Your task to perform on an android device: Add "bose soundlink" to the cart on amazon.com Image 0: 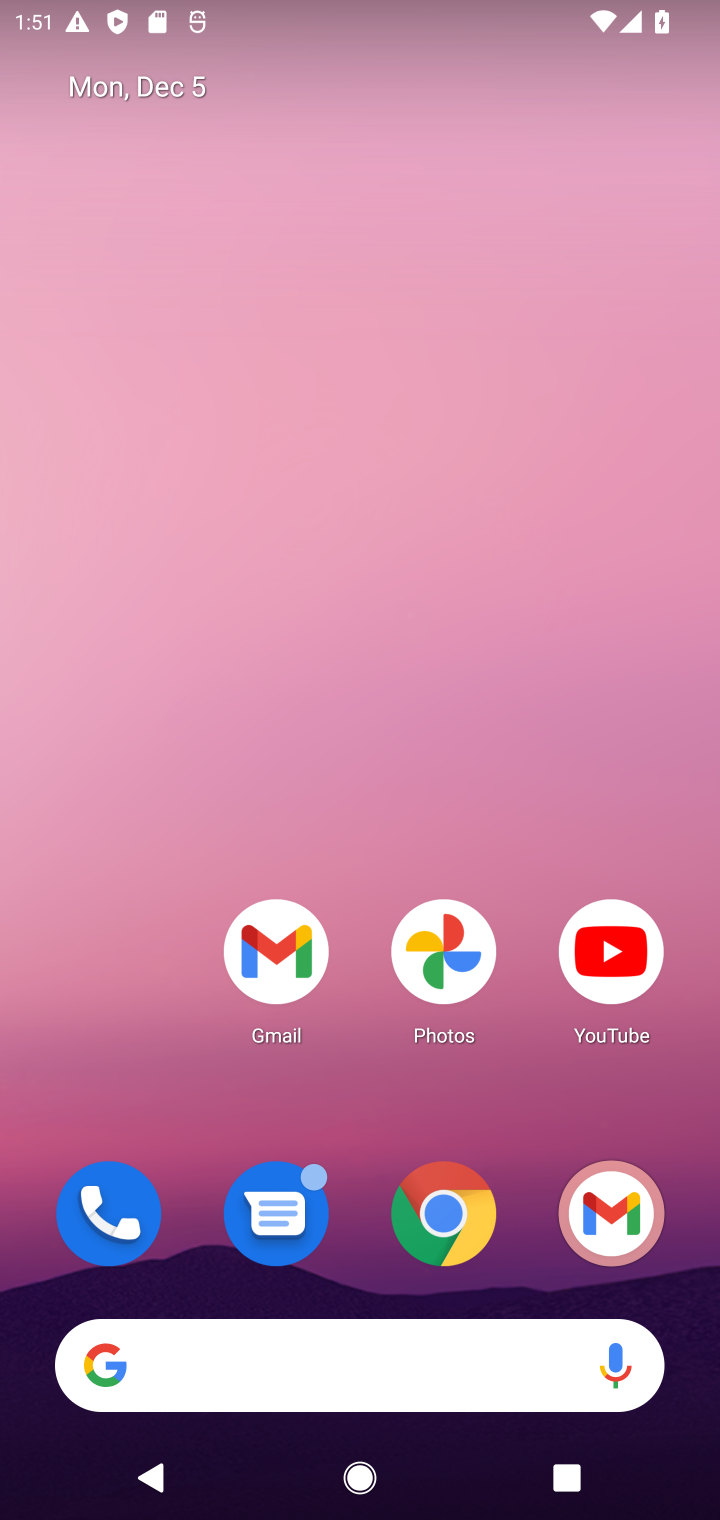
Step 0: click (446, 1225)
Your task to perform on an android device: Add "bose soundlink" to the cart on amazon.com Image 1: 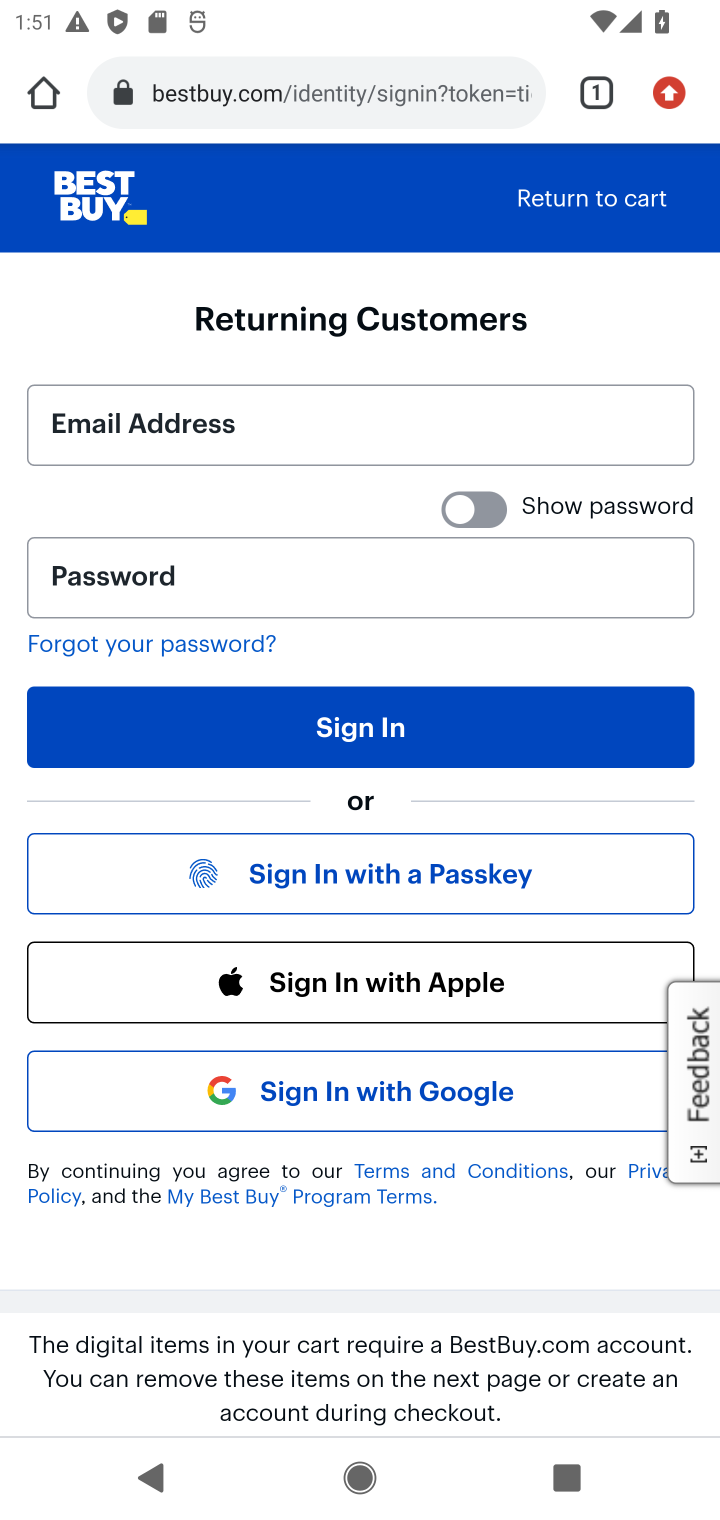
Step 1: click (305, 83)
Your task to perform on an android device: Add "bose soundlink" to the cart on amazon.com Image 2: 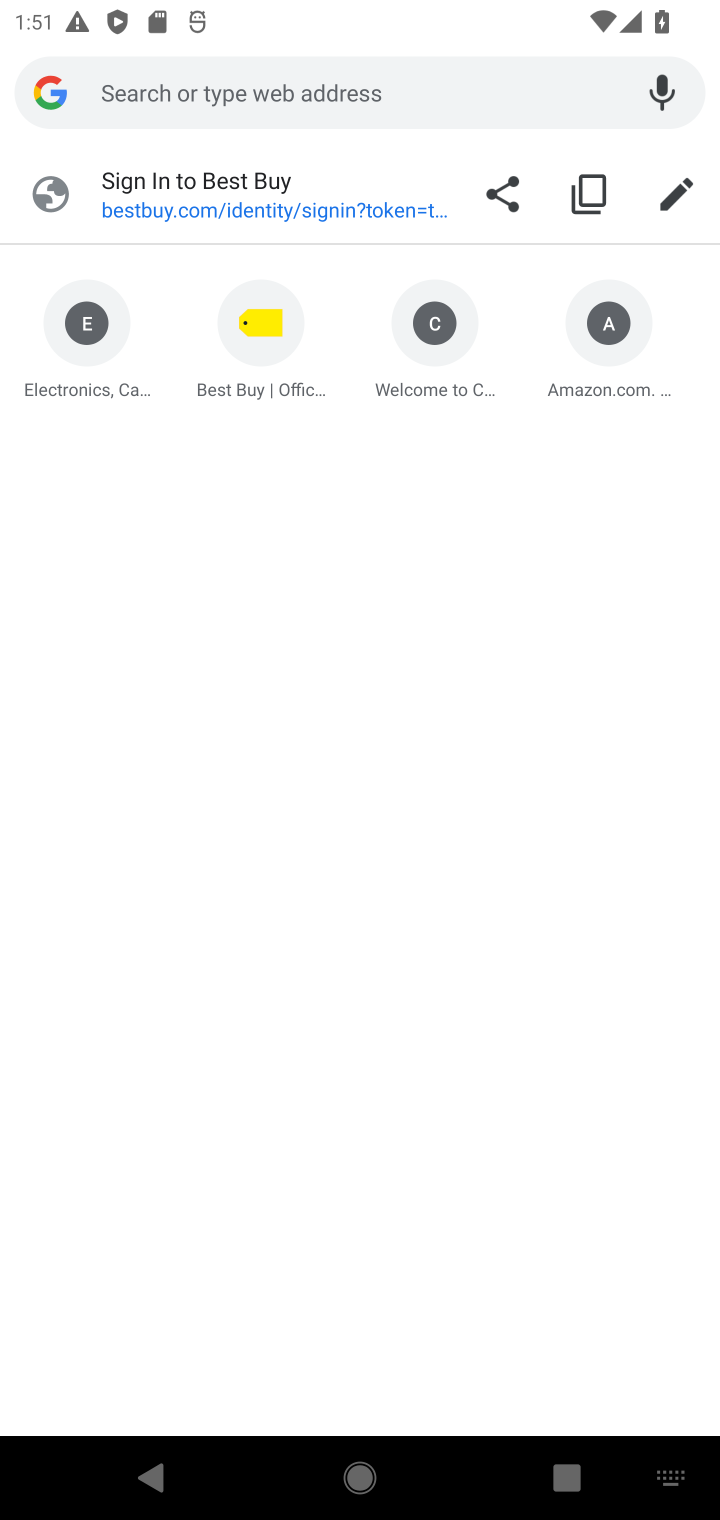
Step 2: click (632, 333)
Your task to perform on an android device: Add "bose soundlink" to the cart on amazon.com Image 3: 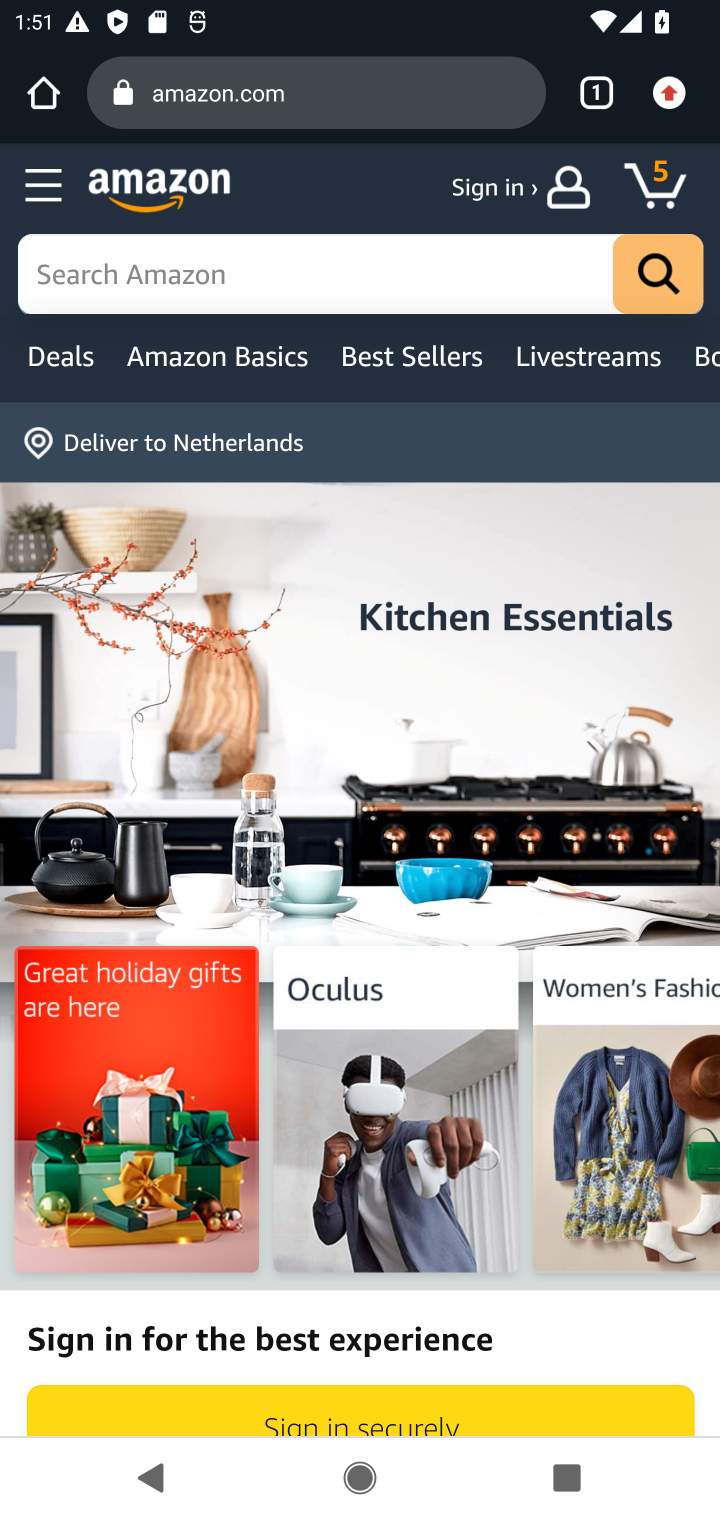
Step 3: click (191, 274)
Your task to perform on an android device: Add "bose soundlink" to the cart on amazon.com Image 4: 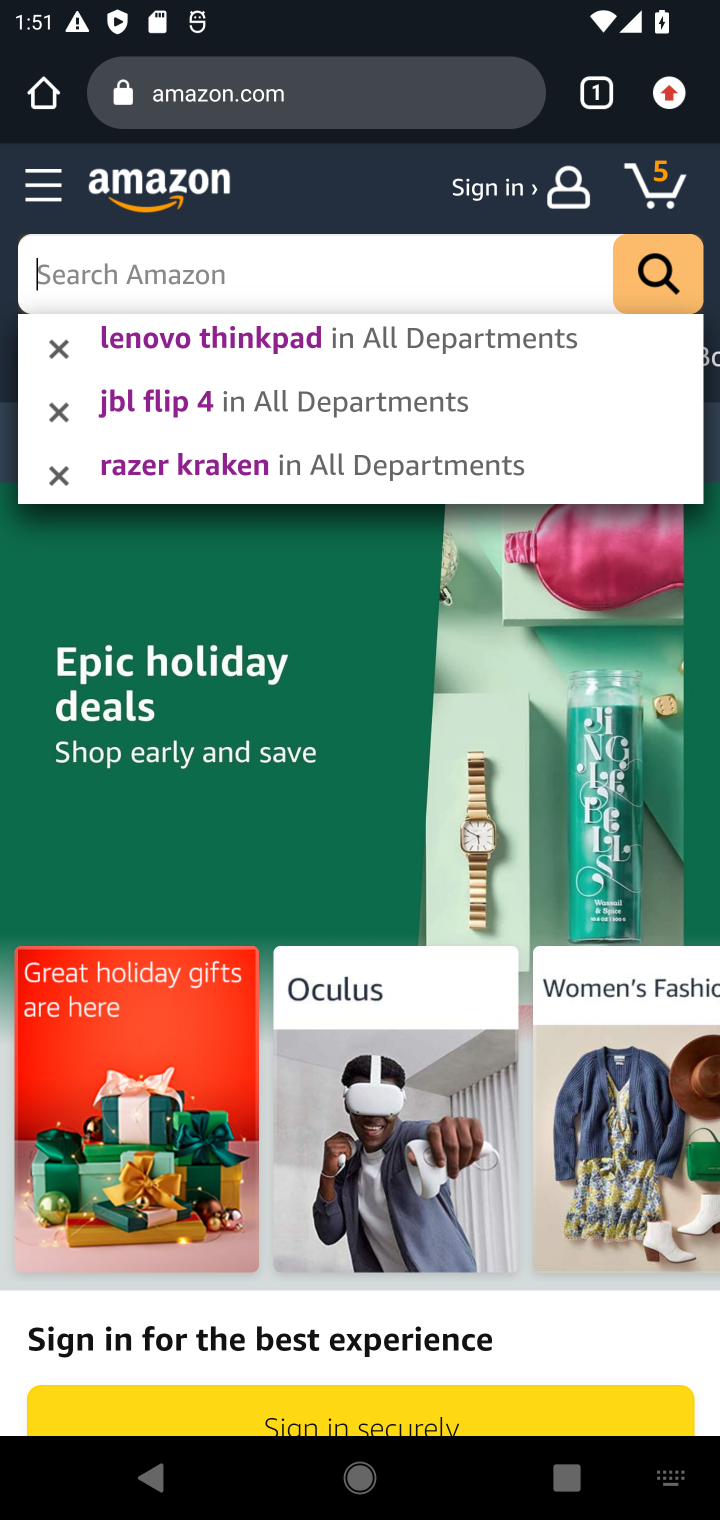
Step 4: type "bose soundlink"
Your task to perform on an android device: Add "bose soundlink" to the cart on amazon.com Image 5: 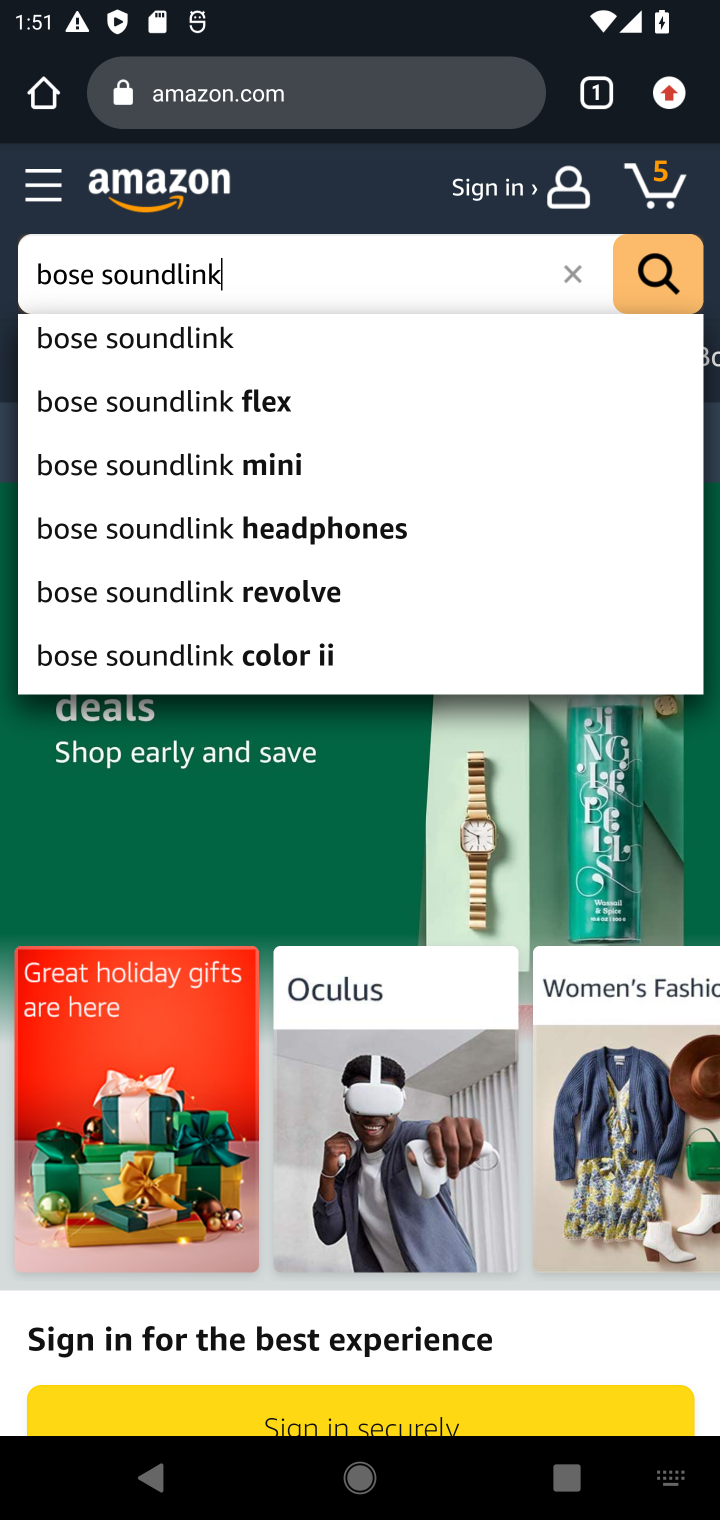
Step 5: click (190, 356)
Your task to perform on an android device: Add "bose soundlink" to the cart on amazon.com Image 6: 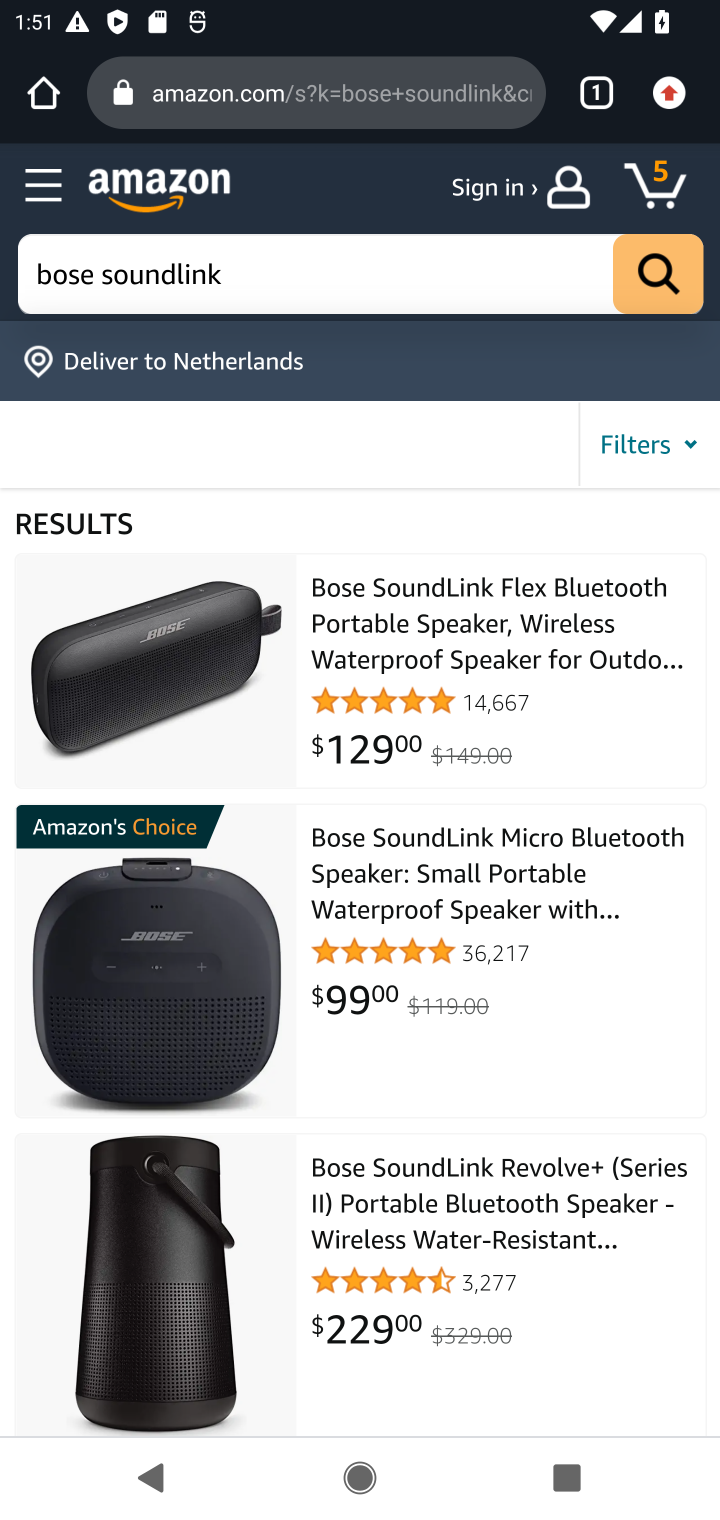
Step 6: click (443, 635)
Your task to perform on an android device: Add "bose soundlink" to the cart on amazon.com Image 7: 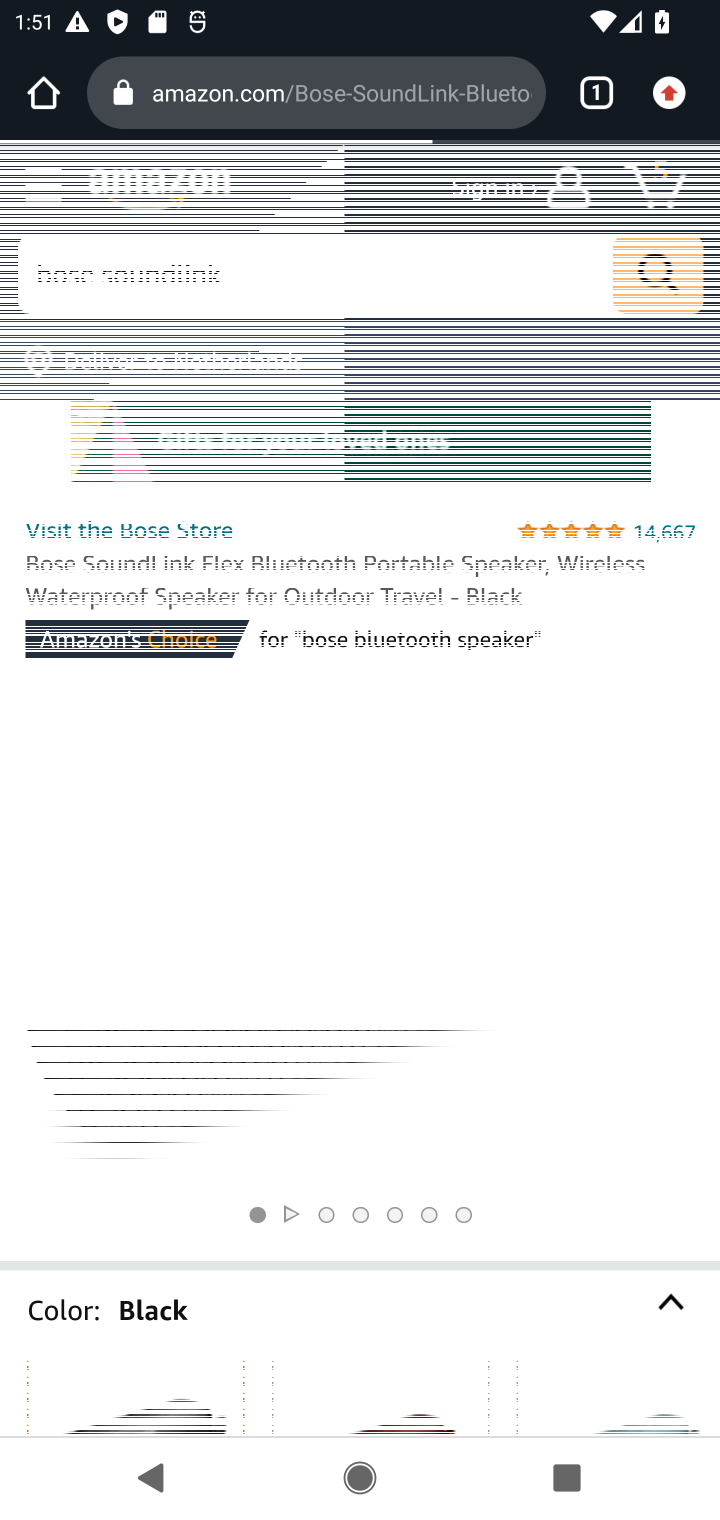
Step 7: drag from (356, 999) to (389, 483)
Your task to perform on an android device: Add "bose soundlink" to the cart on amazon.com Image 8: 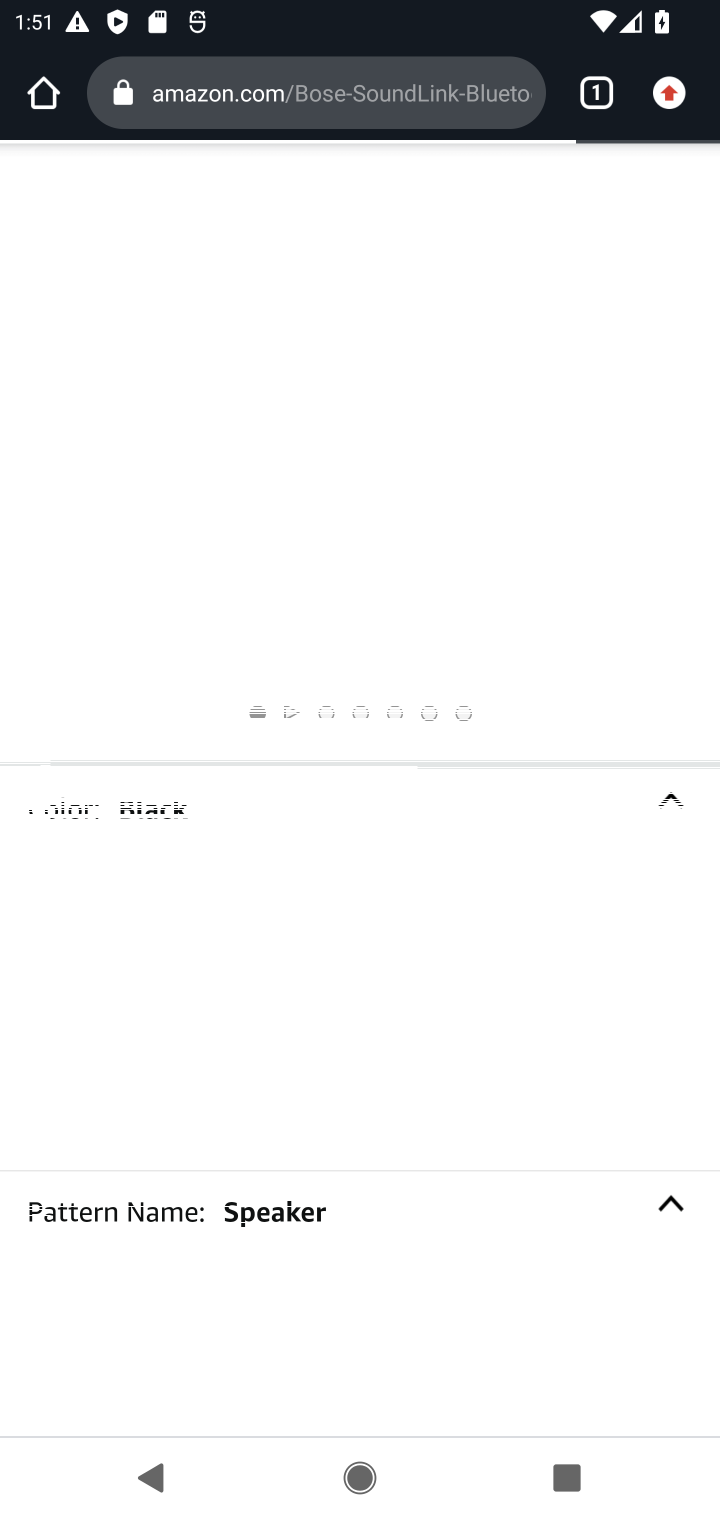
Step 8: drag from (462, 1089) to (472, 340)
Your task to perform on an android device: Add "bose soundlink" to the cart on amazon.com Image 9: 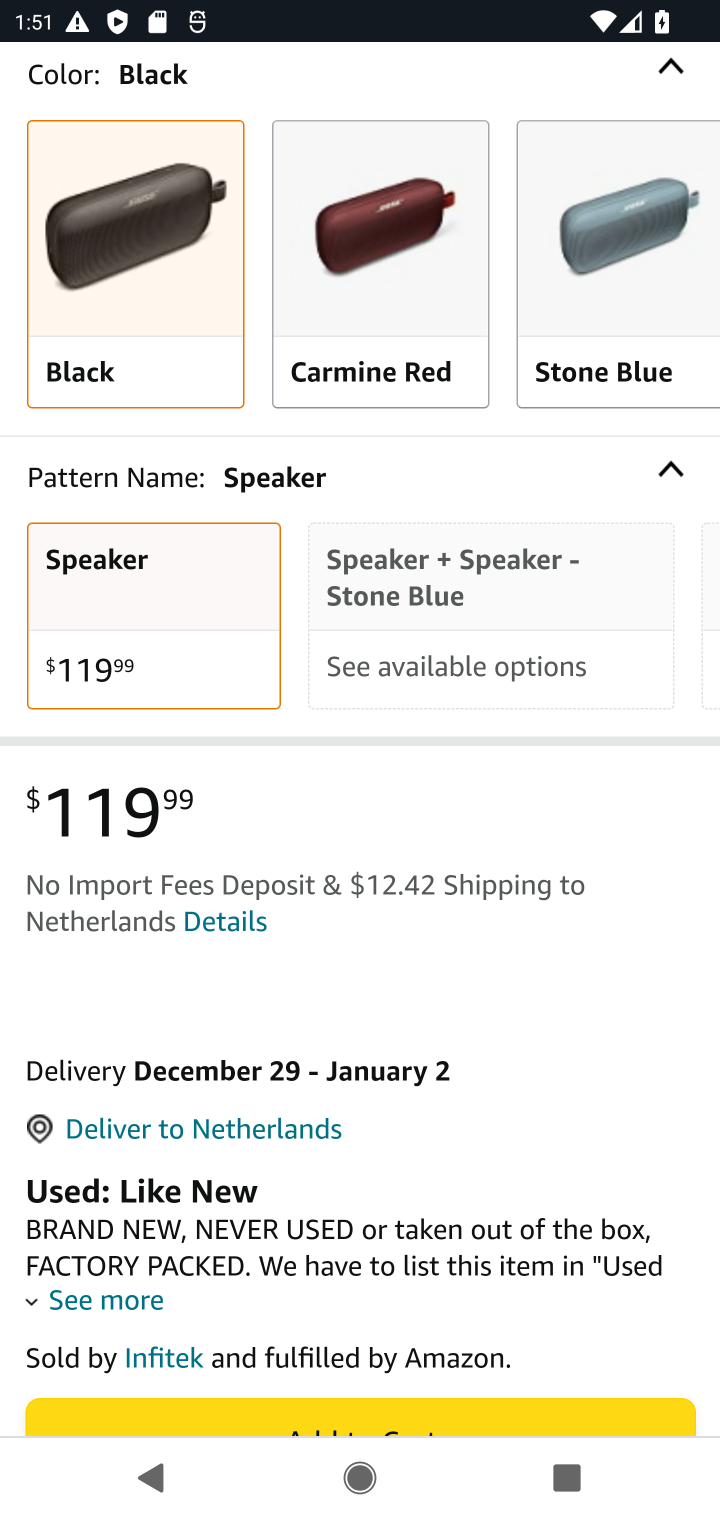
Step 9: drag from (426, 918) to (432, 623)
Your task to perform on an android device: Add "bose soundlink" to the cart on amazon.com Image 10: 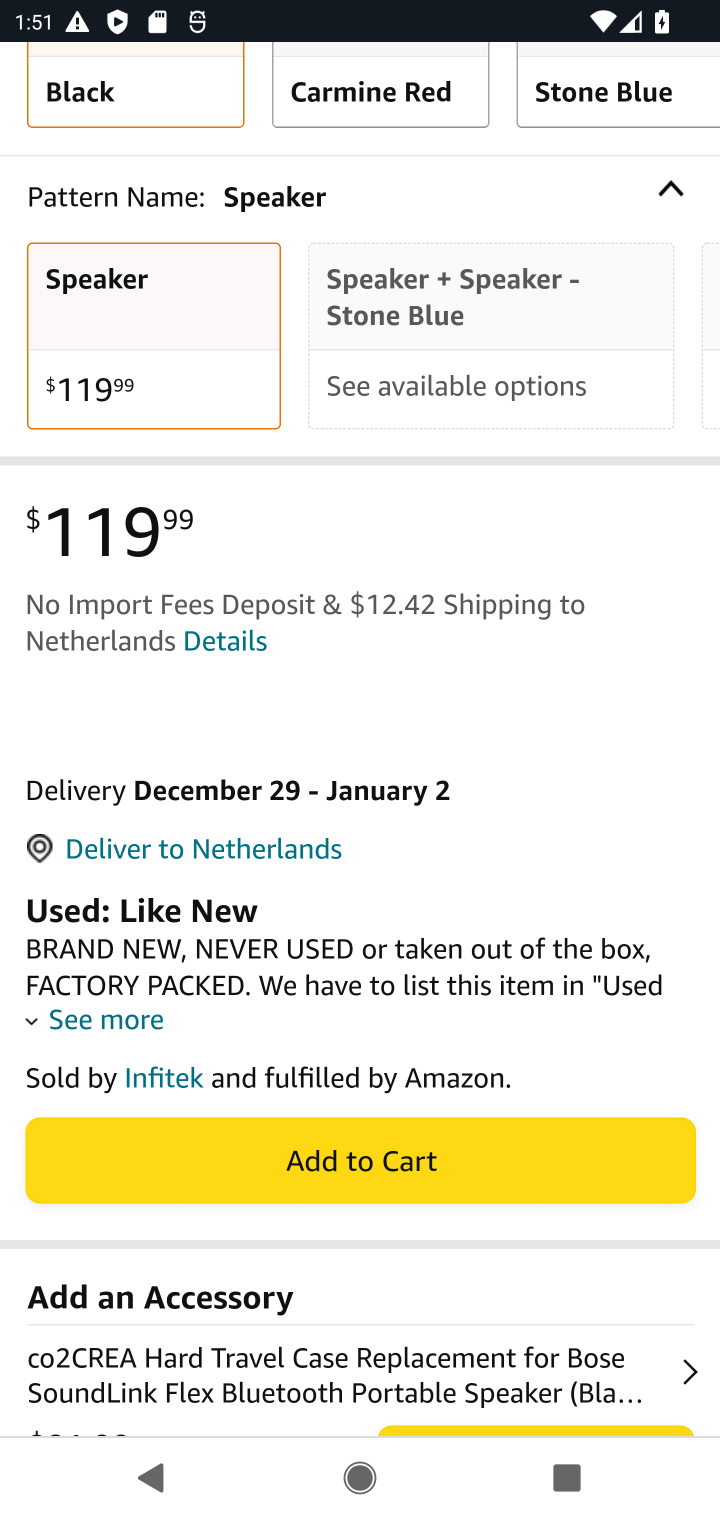
Step 10: click (324, 1162)
Your task to perform on an android device: Add "bose soundlink" to the cart on amazon.com Image 11: 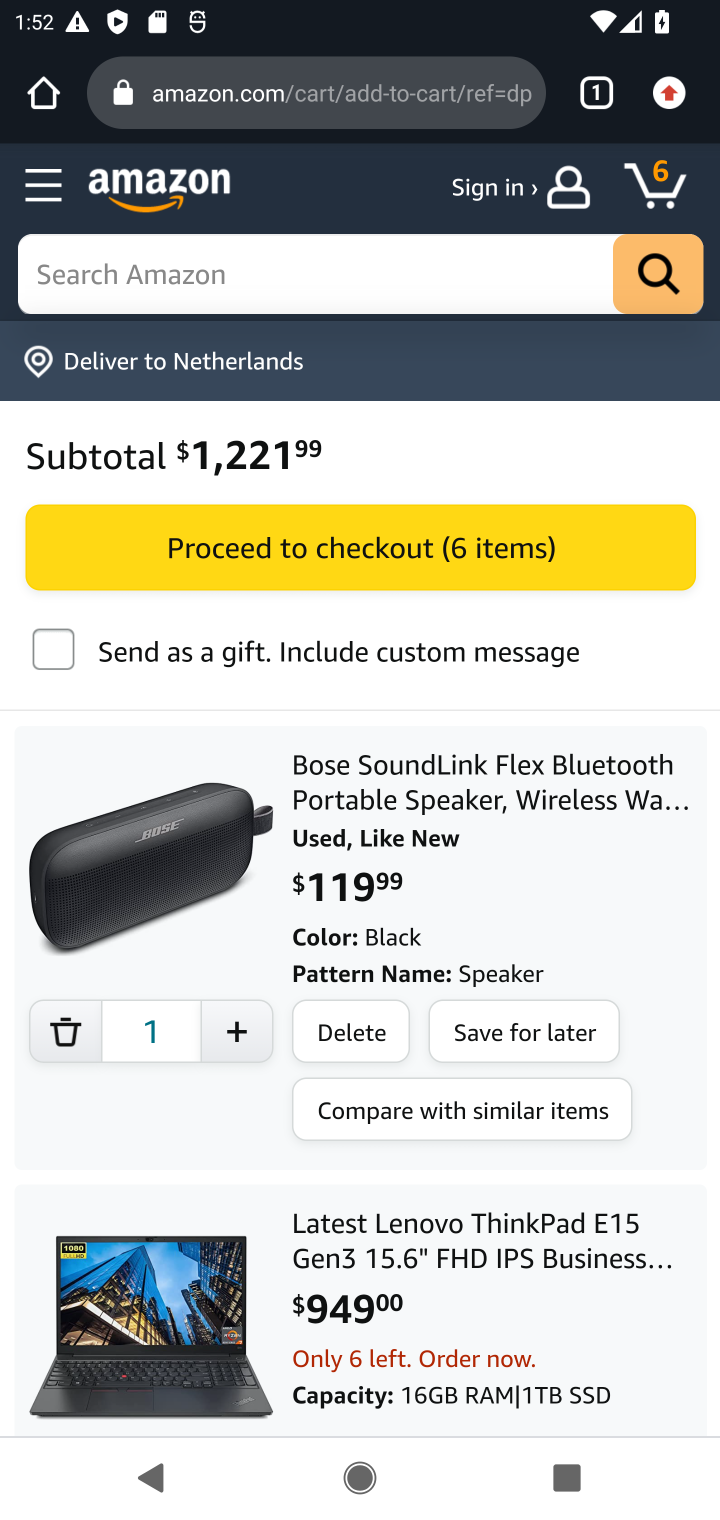
Step 11: task complete